Your task to perform on an android device: delete a single message in the gmail app Image 0: 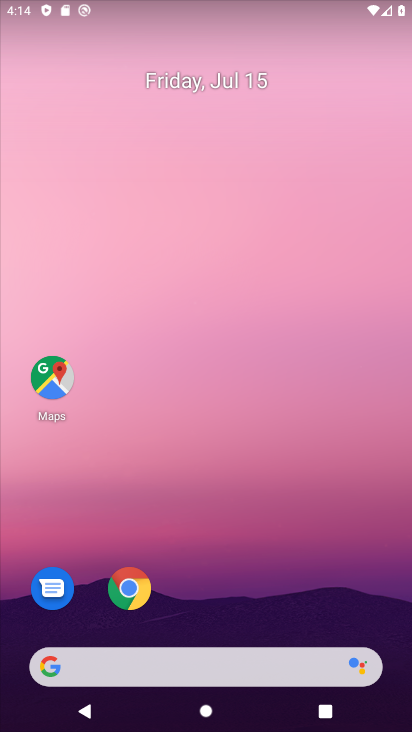
Step 0: click (177, 269)
Your task to perform on an android device: delete a single message in the gmail app Image 1: 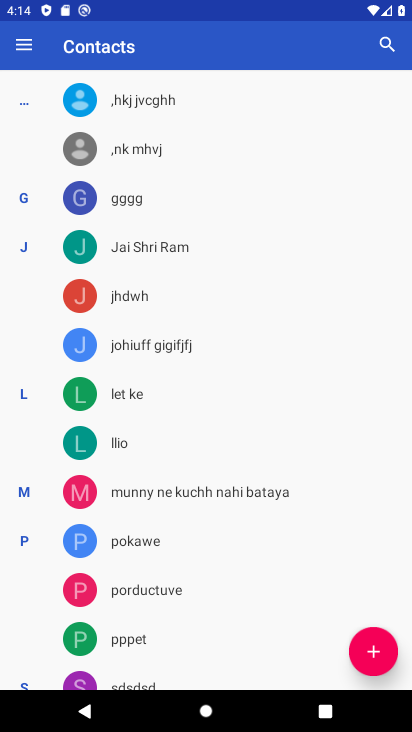
Step 1: press home button
Your task to perform on an android device: delete a single message in the gmail app Image 2: 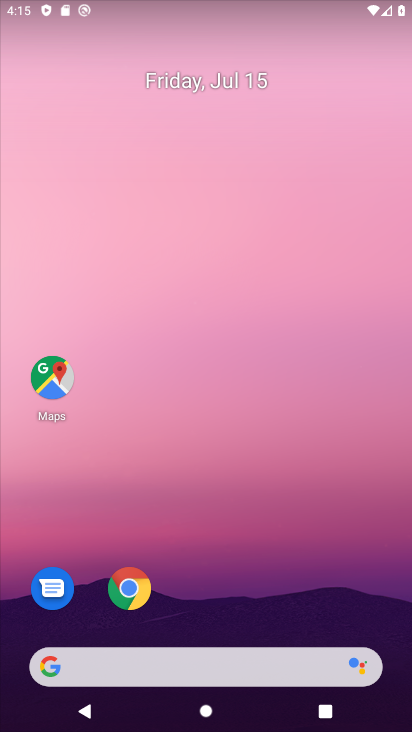
Step 2: drag from (49, 675) to (203, 258)
Your task to perform on an android device: delete a single message in the gmail app Image 3: 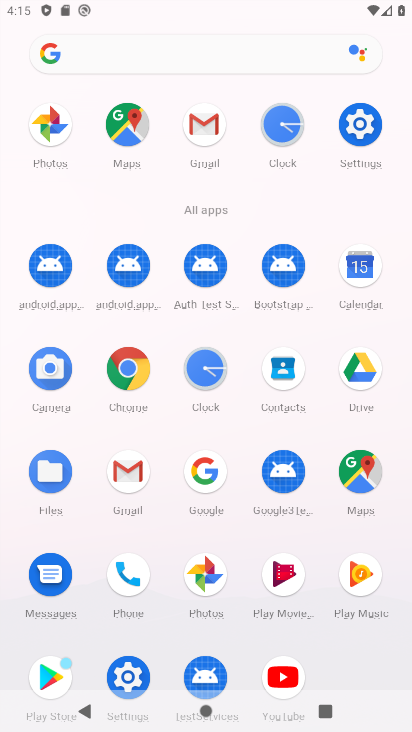
Step 3: click (126, 465)
Your task to perform on an android device: delete a single message in the gmail app Image 4: 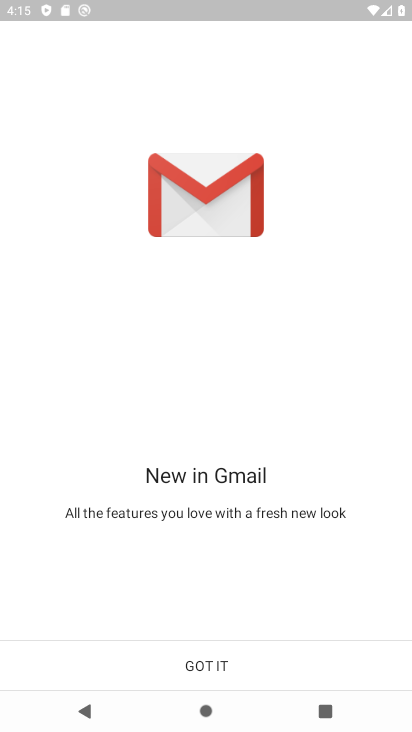
Step 4: click (185, 656)
Your task to perform on an android device: delete a single message in the gmail app Image 5: 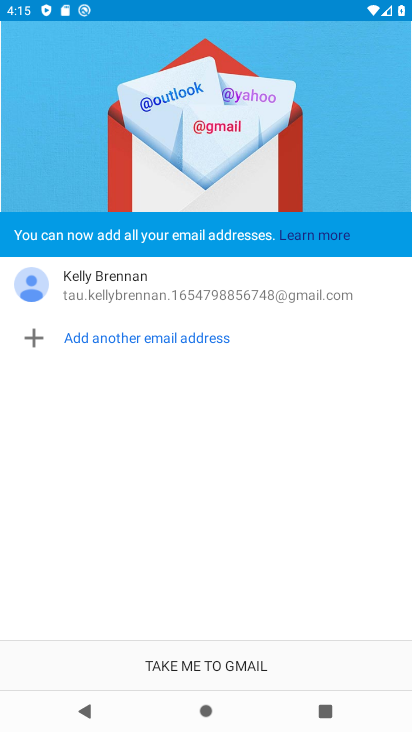
Step 5: click (201, 668)
Your task to perform on an android device: delete a single message in the gmail app Image 6: 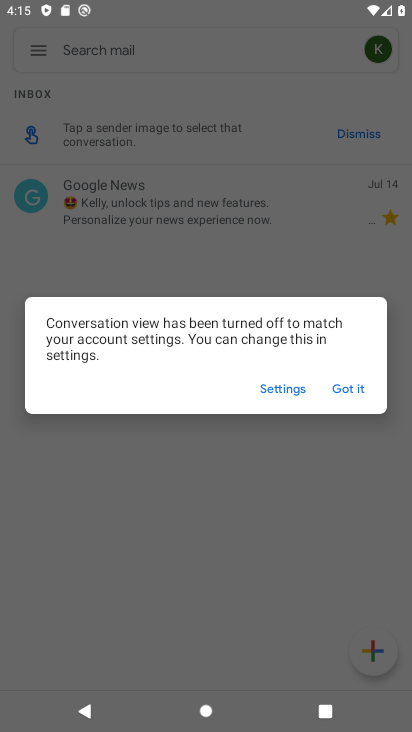
Step 6: click (336, 397)
Your task to perform on an android device: delete a single message in the gmail app Image 7: 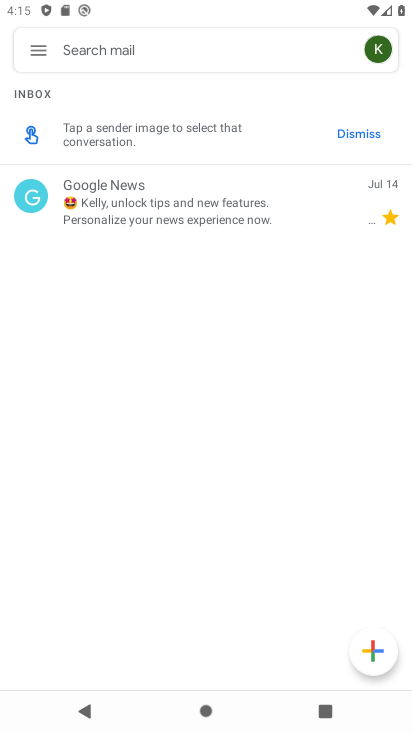
Step 7: click (29, 49)
Your task to perform on an android device: delete a single message in the gmail app Image 8: 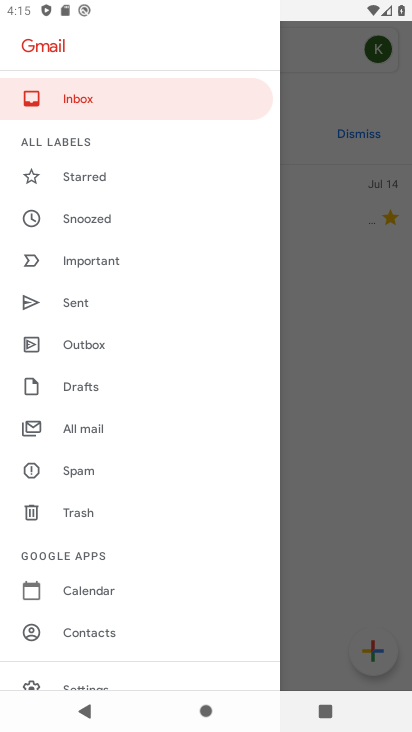
Step 8: click (359, 359)
Your task to perform on an android device: delete a single message in the gmail app Image 9: 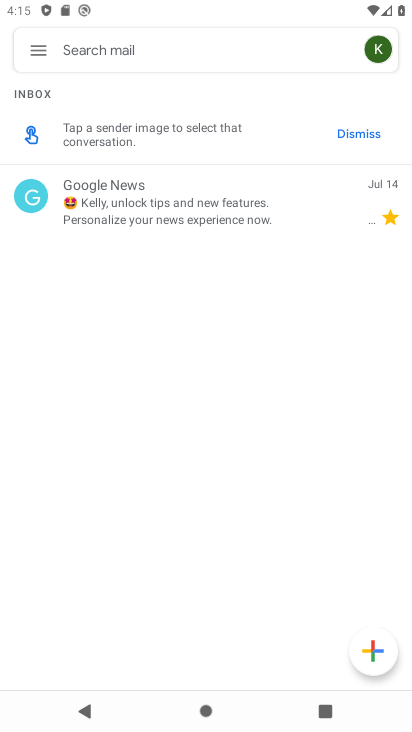
Step 9: click (178, 205)
Your task to perform on an android device: delete a single message in the gmail app Image 10: 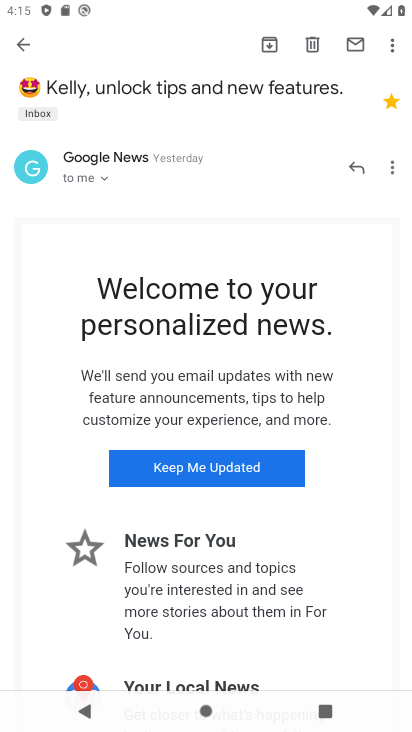
Step 10: click (310, 49)
Your task to perform on an android device: delete a single message in the gmail app Image 11: 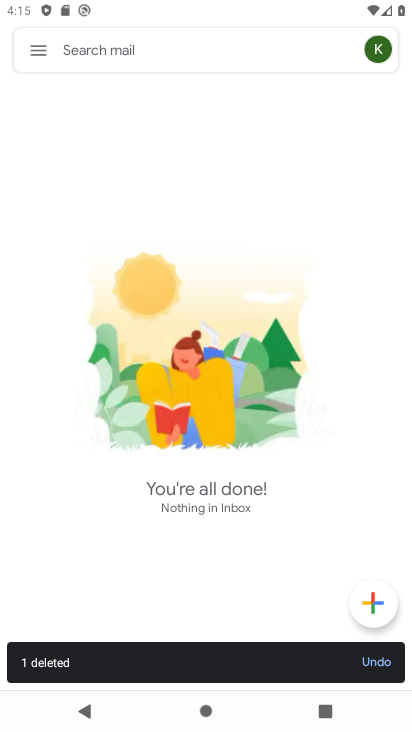
Step 11: task complete